Your task to perform on an android device: delete browsing data in the chrome app Image 0: 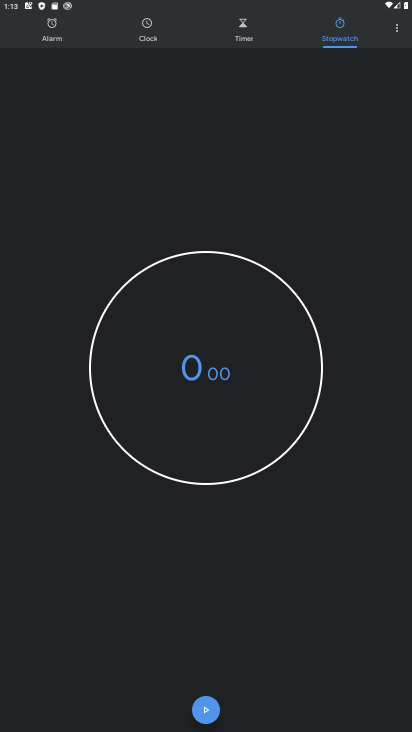
Step 0: press home button
Your task to perform on an android device: delete browsing data in the chrome app Image 1: 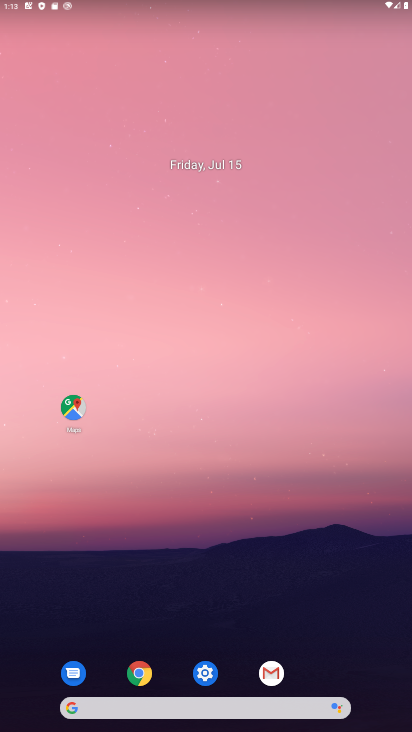
Step 1: click (148, 669)
Your task to perform on an android device: delete browsing data in the chrome app Image 2: 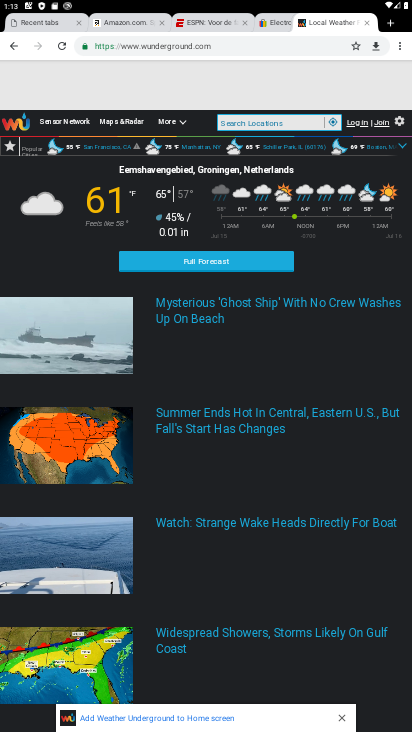
Step 2: click (399, 53)
Your task to perform on an android device: delete browsing data in the chrome app Image 3: 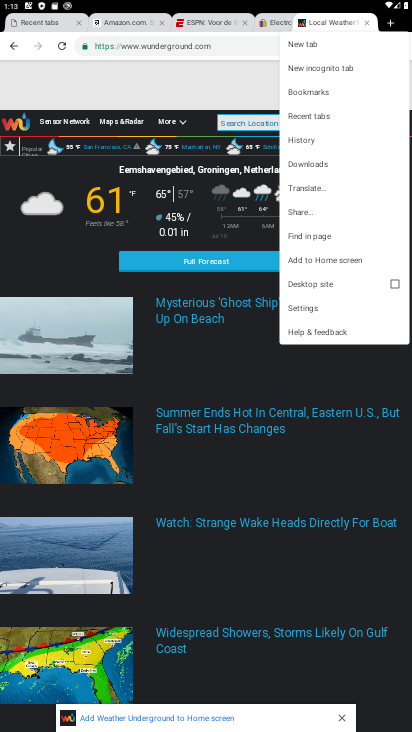
Step 3: click (317, 132)
Your task to perform on an android device: delete browsing data in the chrome app Image 4: 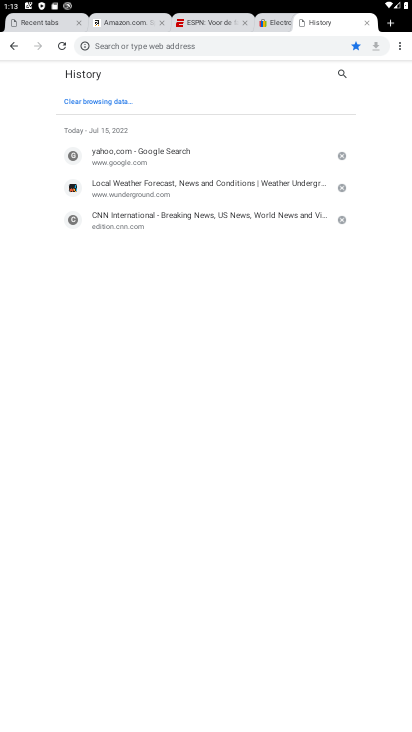
Step 4: click (101, 103)
Your task to perform on an android device: delete browsing data in the chrome app Image 5: 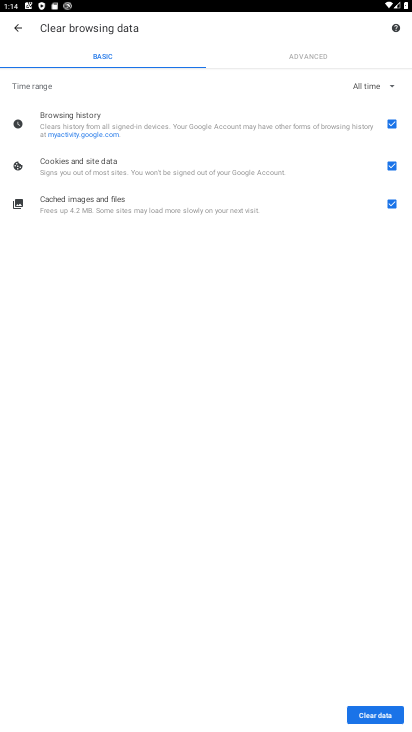
Step 5: click (389, 163)
Your task to perform on an android device: delete browsing data in the chrome app Image 6: 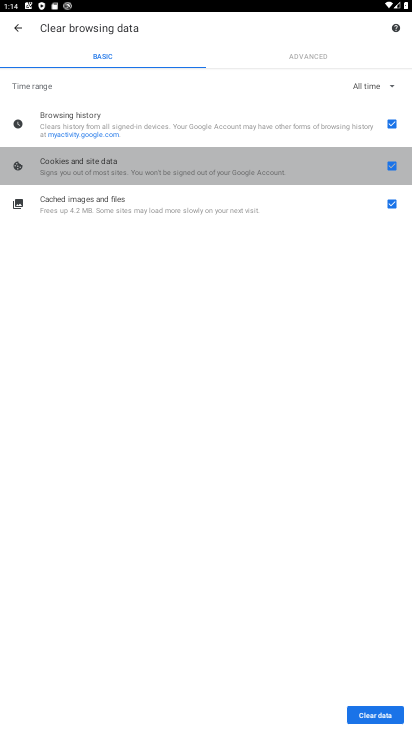
Step 6: click (396, 213)
Your task to perform on an android device: delete browsing data in the chrome app Image 7: 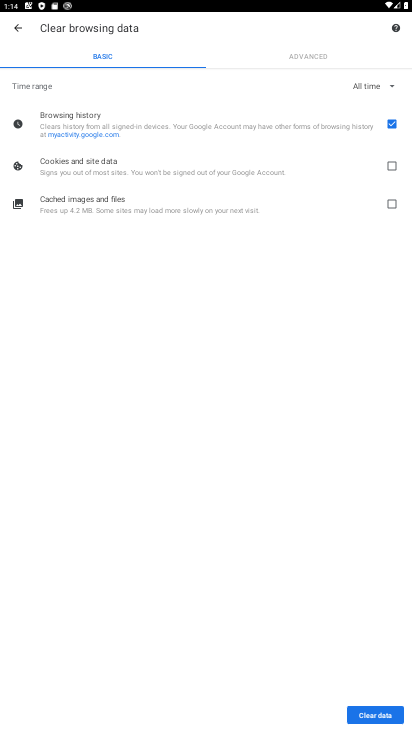
Step 7: click (355, 722)
Your task to perform on an android device: delete browsing data in the chrome app Image 8: 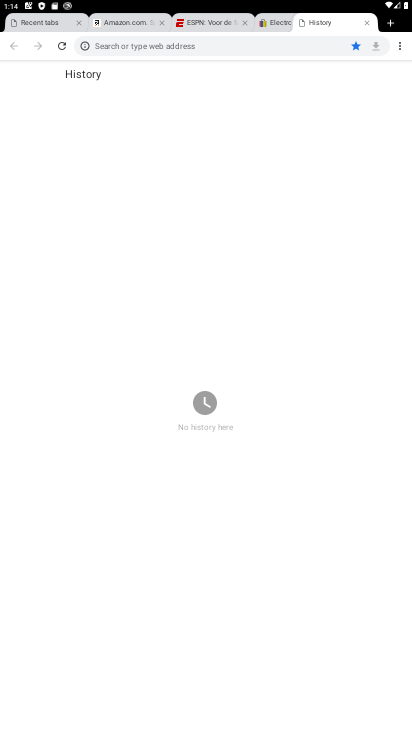
Step 8: task complete